Your task to perform on an android device: Set the phone to "Do not disturb". Image 0: 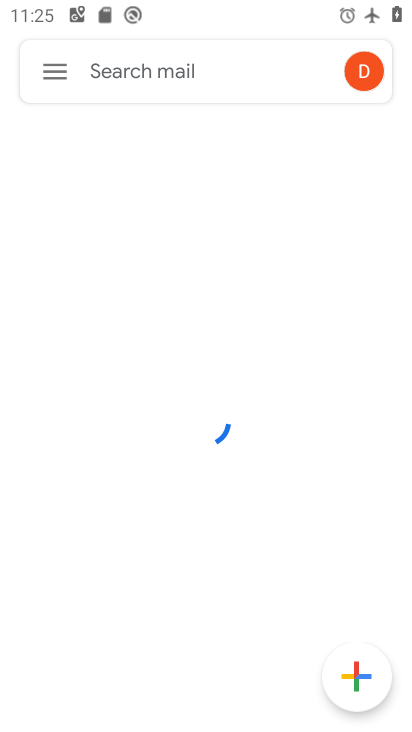
Step 0: press home button
Your task to perform on an android device: Set the phone to "Do not disturb". Image 1: 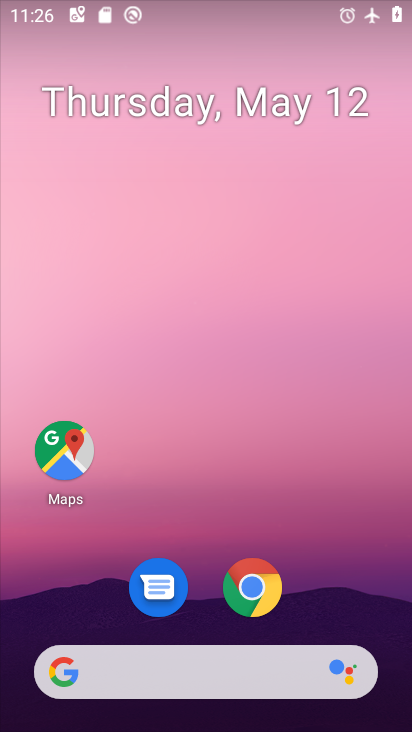
Step 1: drag from (209, 8) to (230, 669)
Your task to perform on an android device: Set the phone to "Do not disturb". Image 2: 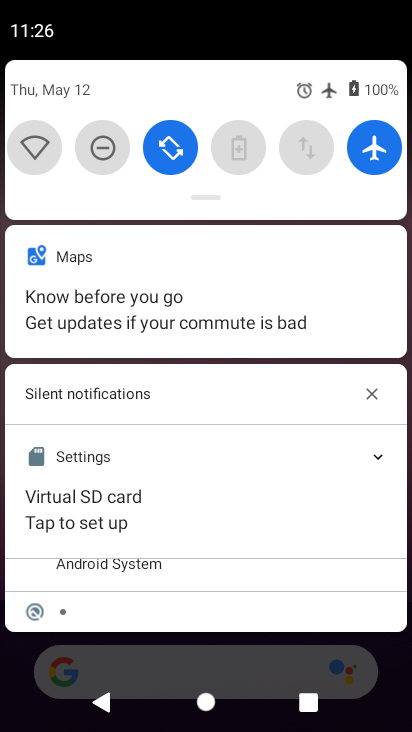
Step 2: click (107, 123)
Your task to perform on an android device: Set the phone to "Do not disturb". Image 3: 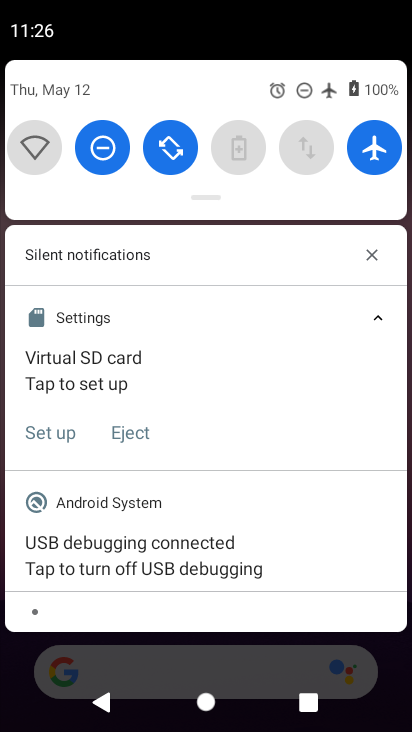
Step 3: task complete